Your task to perform on an android device: refresh tabs in the chrome app Image 0: 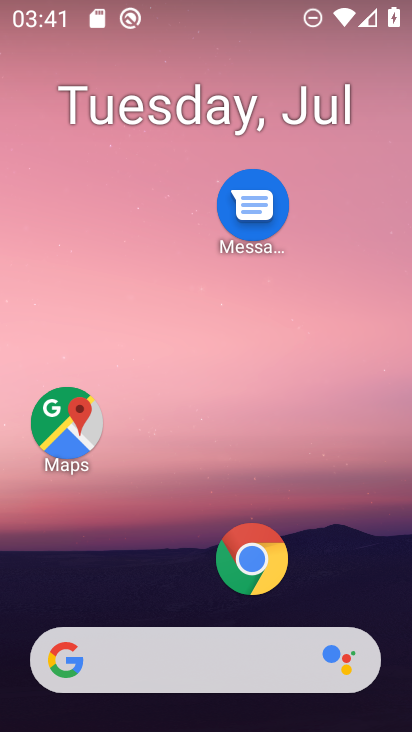
Step 0: click (254, 546)
Your task to perform on an android device: refresh tabs in the chrome app Image 1: 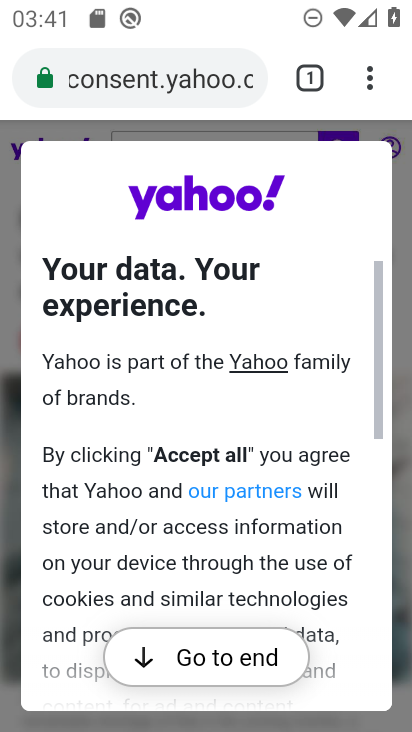
Step 1: click (366, 72)
Your task to perform on an android device: refresh tabs in the chrome app Image 2: 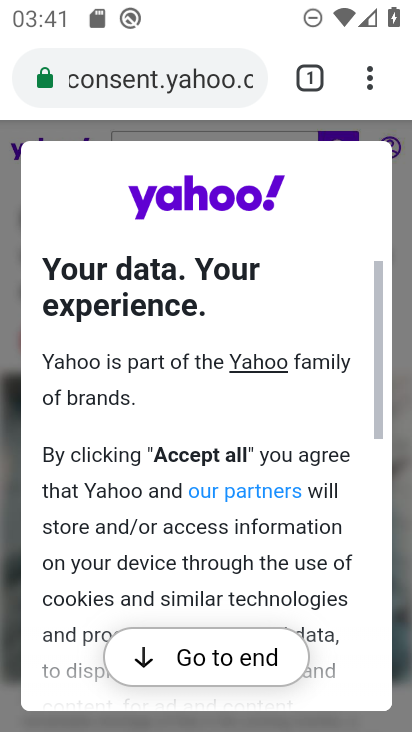
Step 2: task complete